Your task to perform on an android device: Open sound settings Image 0: 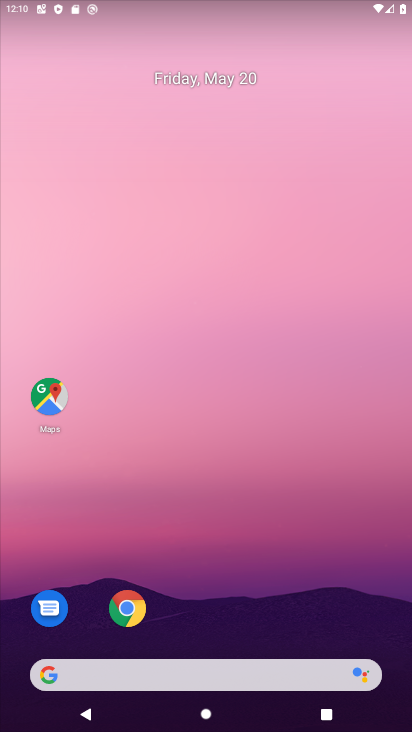
Step 0: drag from (297, 582) to (298, 201)
Your task to perform on an android device: Open sound settings Image 1: 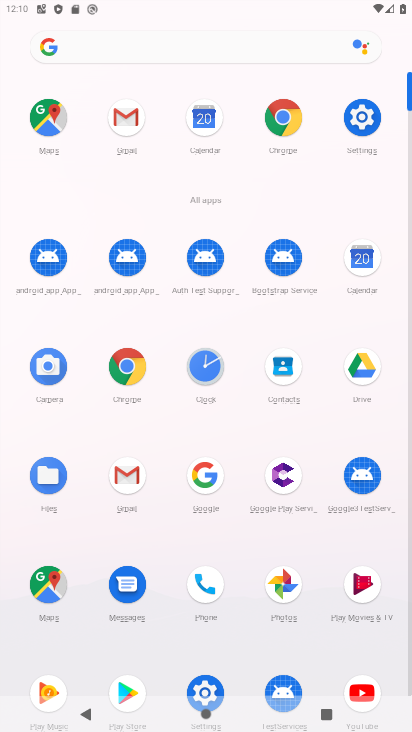
Step 1: click (371, 135)
Your task to perform on an android device: Open sound settings Image 2: 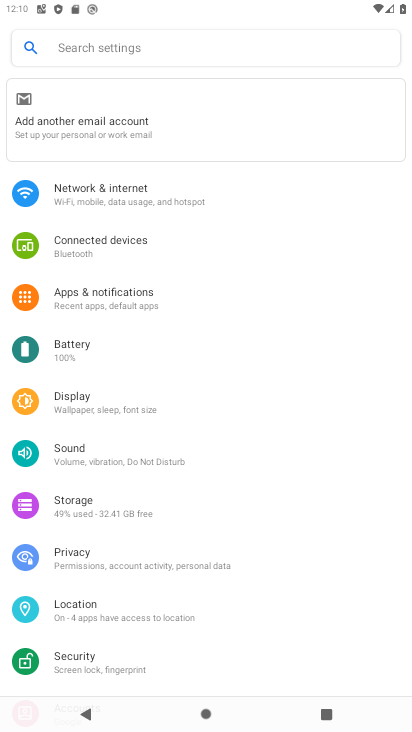
Step 2: click (99, 459)
Your task to perform on an android device: Open sound settings Image 3: 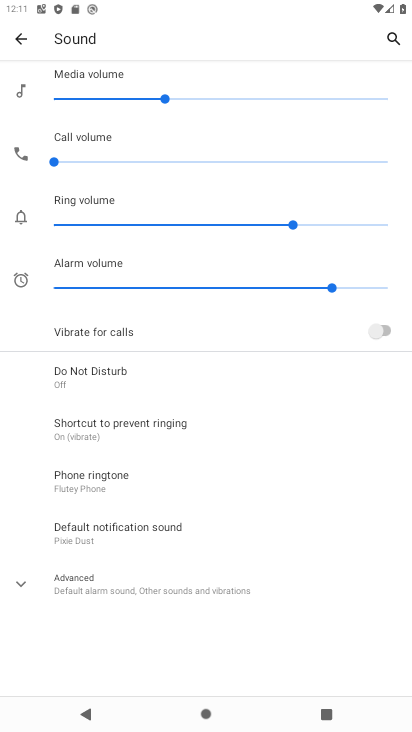
Step 3: task complete